Your task to perform on an android device: Go to Google maps Image 0: 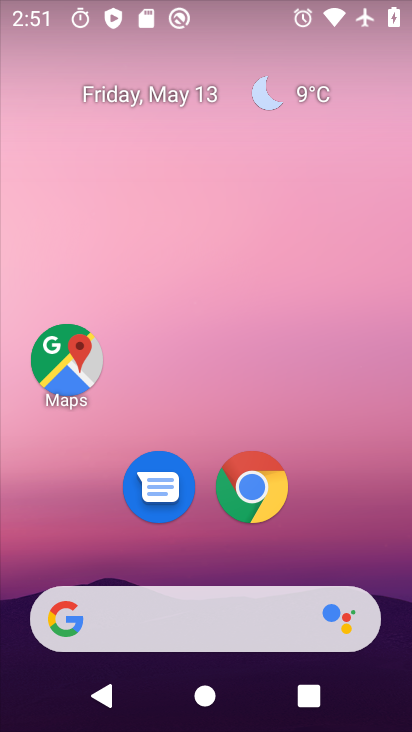
Step 0: click (66, 364)
Your task to perform on an android device: Go to Google maps Image 1: 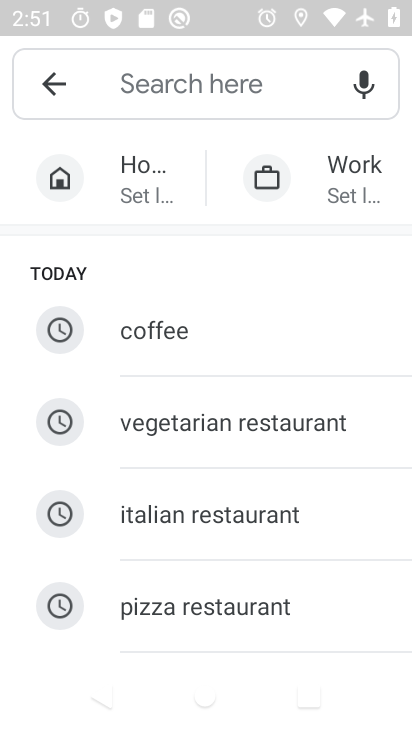
Step 1: task complete